Your task to perform on an android device: toggle airplane mode Image 0: 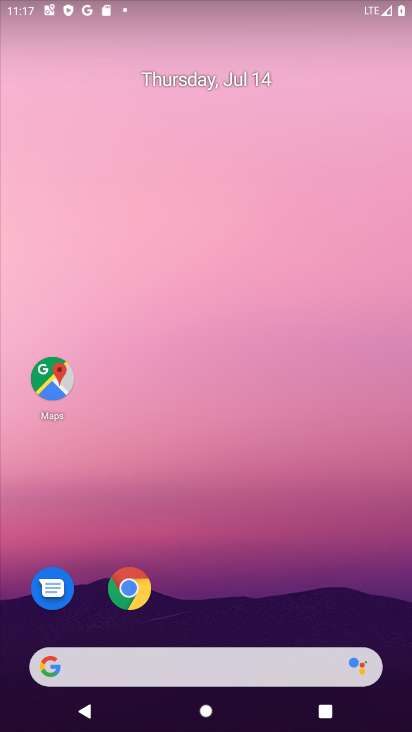
Step 0: drag from (168, 670) to (308, 86)
Your task to perform on an android device: toggle airplane mode Image 1: 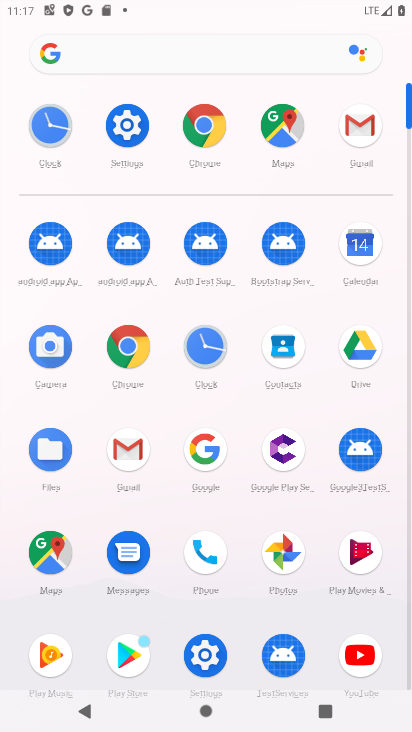
Step 1: click (130, 126)
Your task to perform on an android device: toggle airplane mode Image 2: 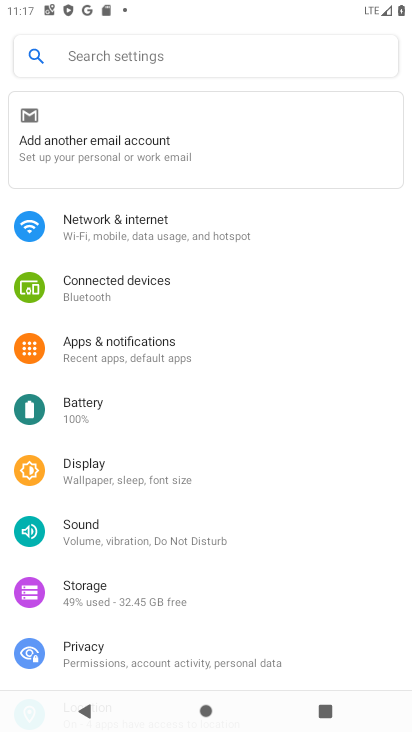
Step 2: click (121, 227)
Your task to perform on an android device: toggle airplane mode Image 3: 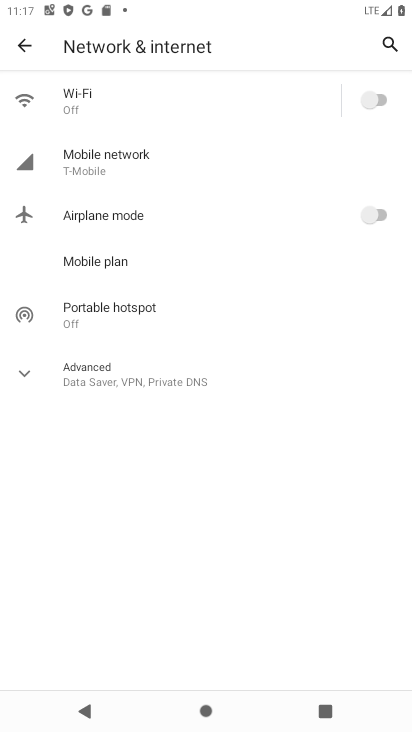
Step 3: click (385, 215)
Your task to perform on an android device: toggle airplane mode Image 4: 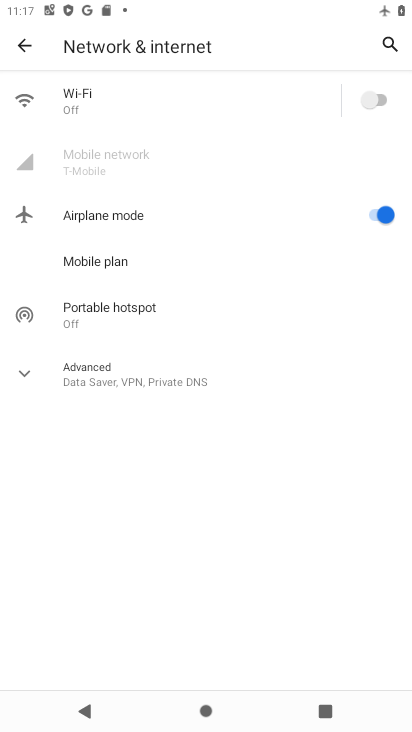
Step 4: task complete